Your task to perform on an android device: allow cookies in the chrome app Image 0: 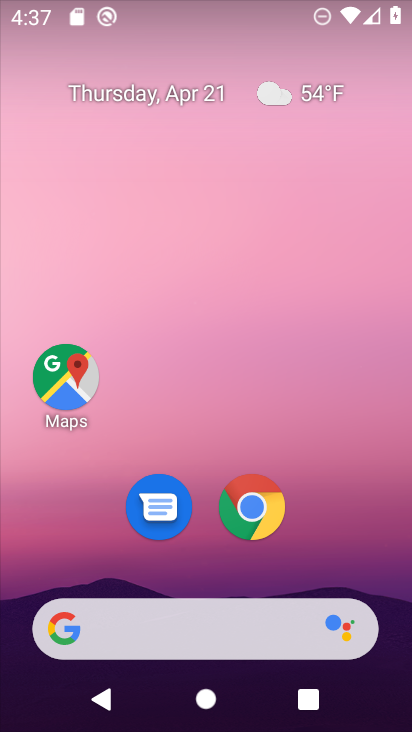
Step 0: click (269, 519)
Your task to perform on an android device: allow cookies in the chrome app Image 1: 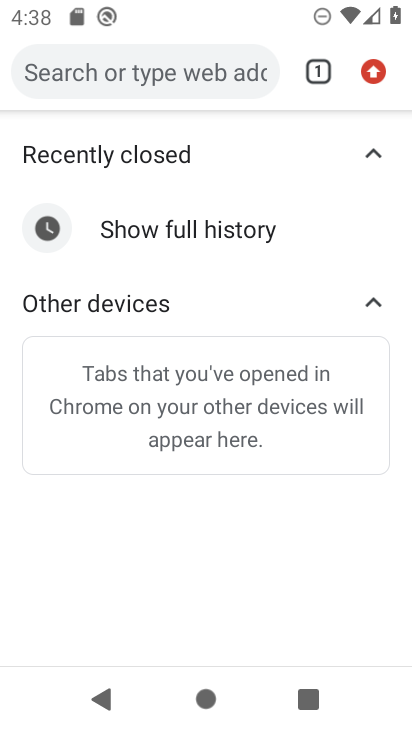
Step 1: click (372, 72)
Your task to perform on an android device: allow cookies in the chrome app Image 2: 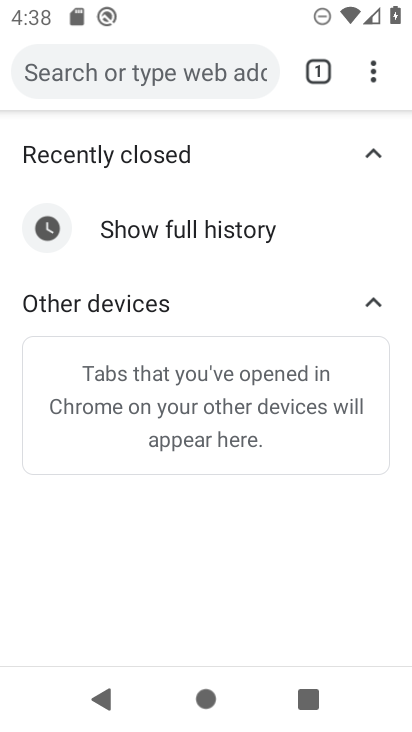
Step 2: click (372, 72)
Your task to perform on an android device: allow cookies in the chrome app Image 3: 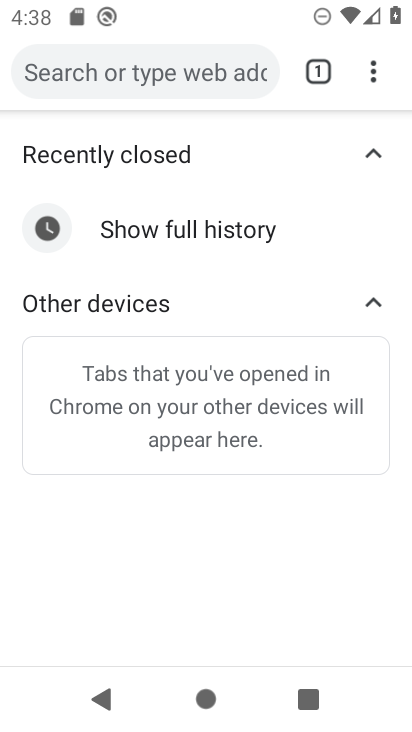
Step 3: drag from (372, 72) to (114, 494)
Your task to perform on an android device: allow cookies in the chrome app Image 4: 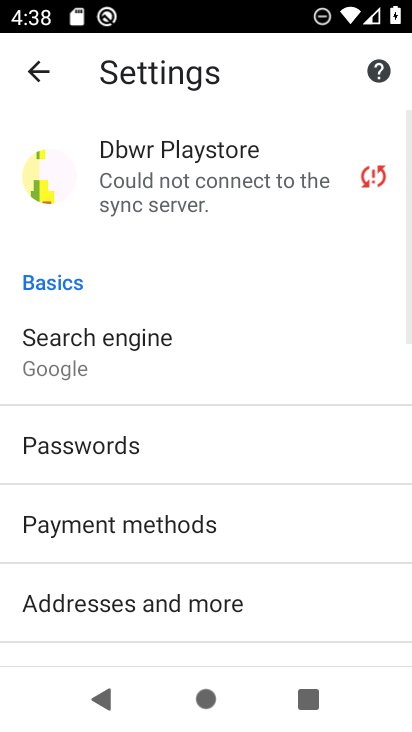
Step 4: drag from (192, 569) to (140, 265)
Your task to perform on an android device: allow cookies in the chrome app Image 5: 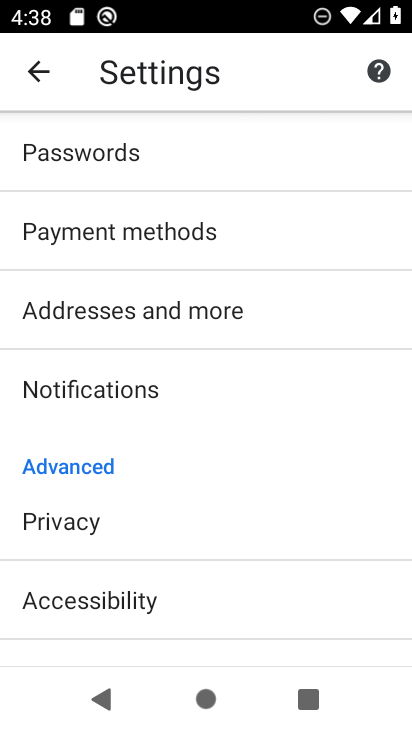
Step 5: drag from (131, 519) to (165, 207)
Your task to perform on an android device: allow cookies in the chrome app Image 6: 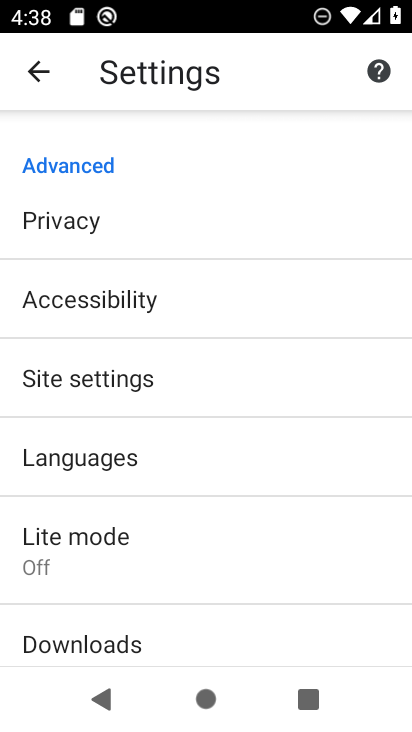
Step 6: click (70, 399)
Your task to perform on an android device: allow cookies in the chrome app Image 7: 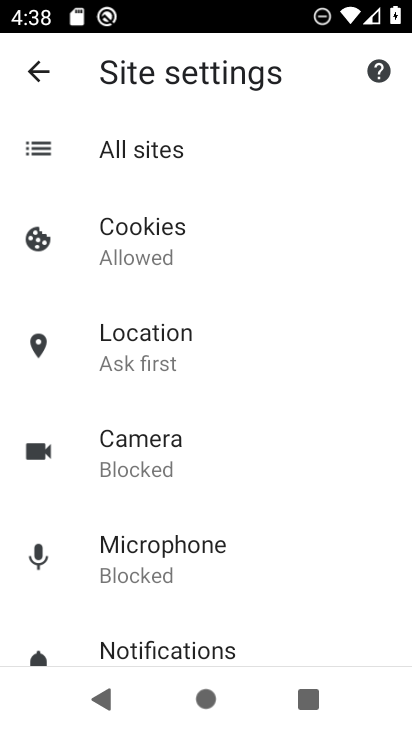
Step 7: click (155, 271)
Your task to perform on an android device: allow cookies in the chrome app Image 8: 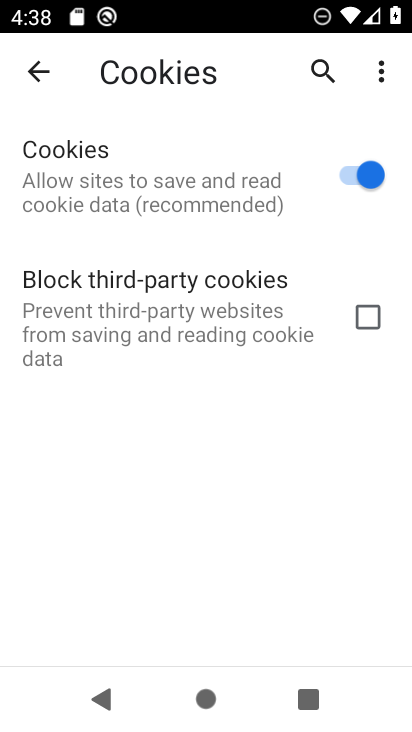
Step 8: task complete